Your task to perform on an android device: check battery use Image 0: 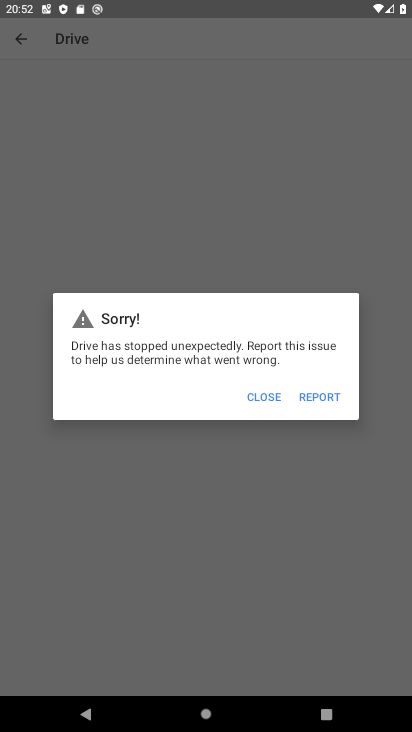
Step 0: press home button
Your task to perform on an android device: check battery use Image 1: 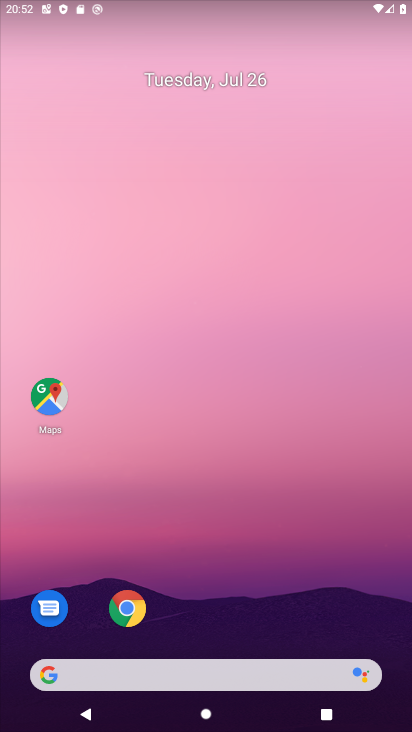
Step 1: drag from (113, 479) to (217, 287)
Your task to perform on an android device: check battery use Image 2: 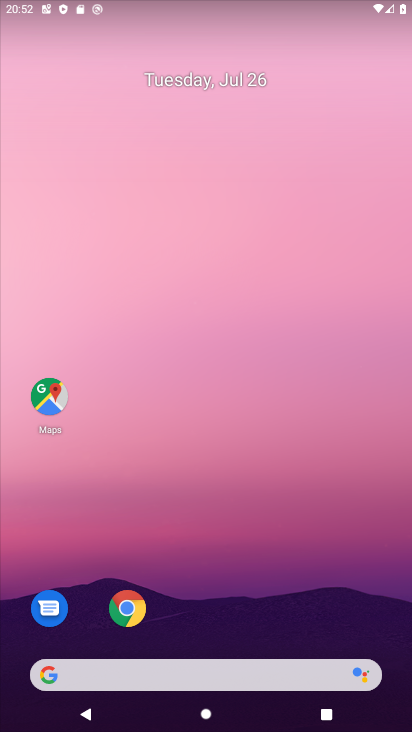
Step 2: drag from (24, 700) to (250, 180)
Your task to perform on an android device: check battery use Image 3: 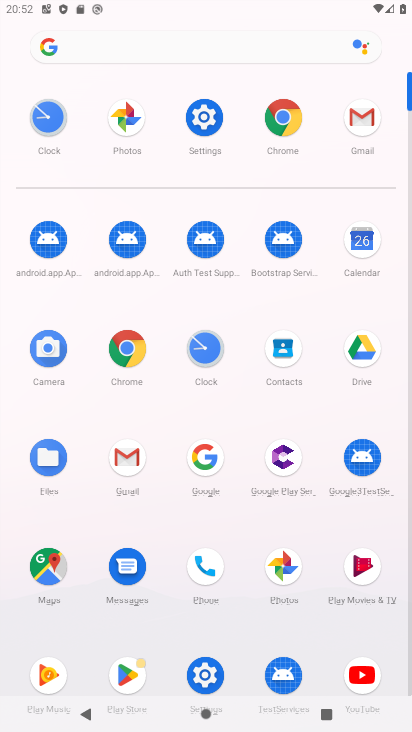
Step 3: click (214, 674)
Your task to perform on an android device: check battery use Image 4: 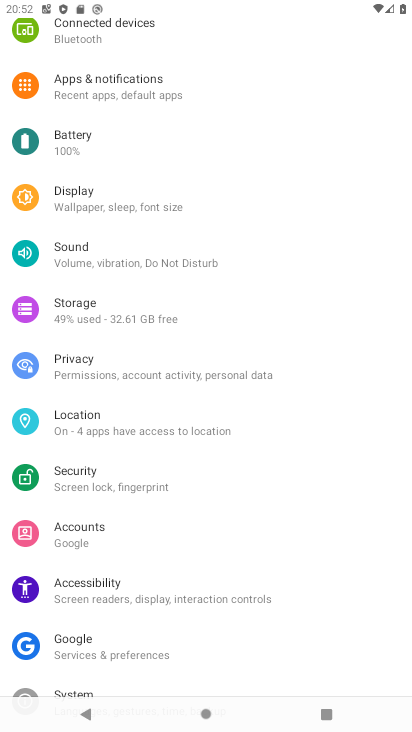
Step 4: click (99, 135)
Your task to perform on an android device: check battery use Image 5: 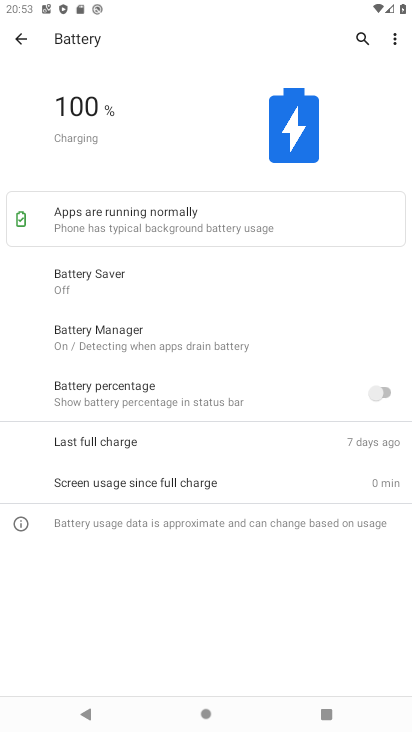
Step 5: task complete